Your task to perform on an android device: clear all cookies in the chrome app Image 0: 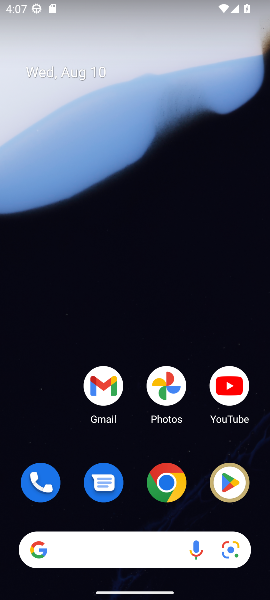
Step 0: click (165, 483)
Your task to perform on an android device: clear all cookies in the chrome app Image 1: 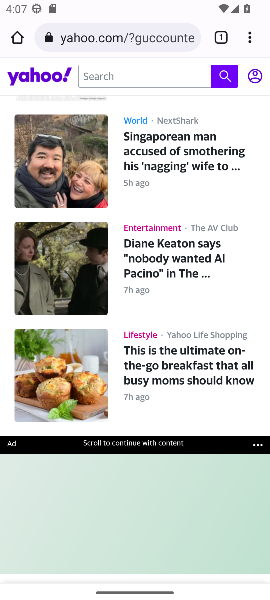
Step 1: click (251, 40)
Your task to perform on an android device: clear all cookies in the chrome app Image 2: 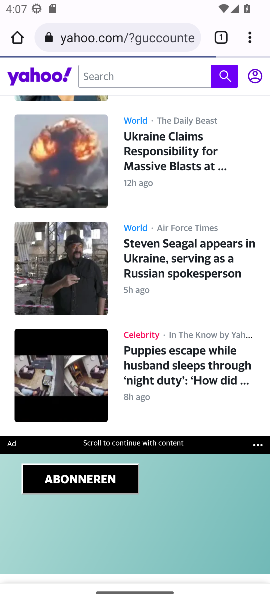
Step 2: click (247, 37)
Your task to perform on an android device: clear all cookies in the chrome app Image 3: 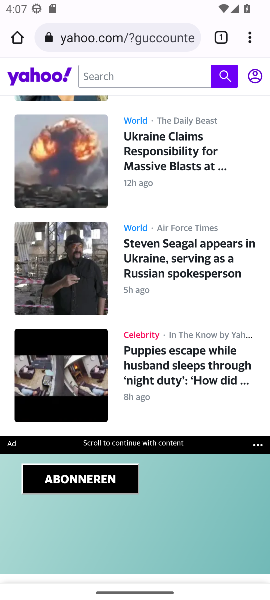
Step 3: click (247, 38)
Your task to perform on an android device: clear all cookies in the chrome app Image 4: 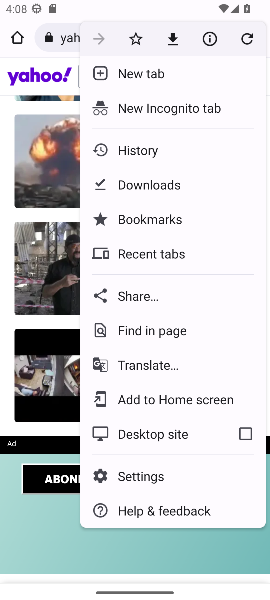
Step 4: click (141, 148)
Your task to perform on an android device: clear all cookies in the chrome app Image 5: 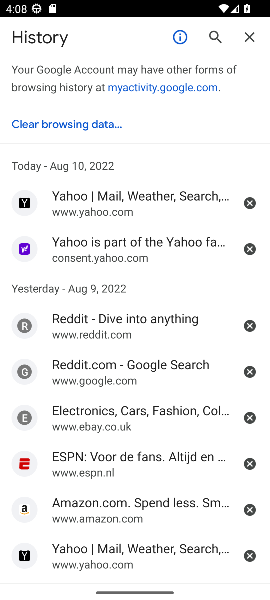
Step 5: click (110, 125)
Your task to perform on an android device: clear all cookies in the chrome app Image 6: 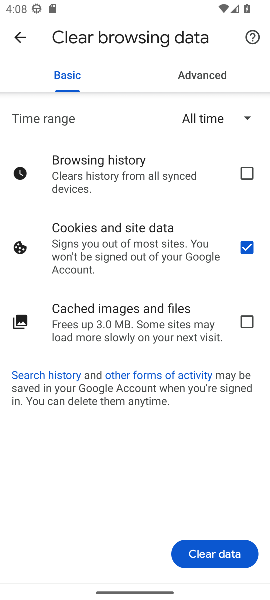
Step 6: click (208, 552)
Your task to perform on an android device: clear all cookies in the chrome app Image 7: 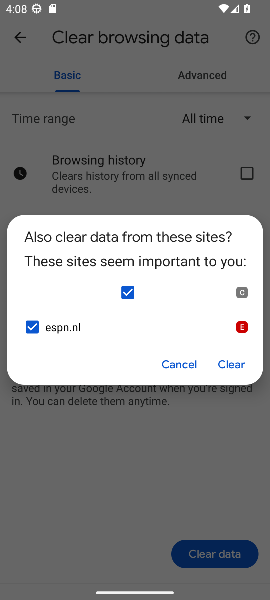
Step 7: click (238, 364)
Your task to perform on an android device: clear all cookies in the chrome app Image 8: 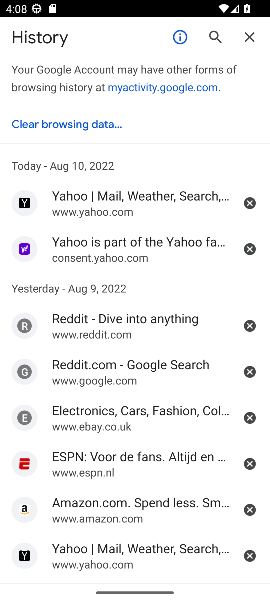
Step 8: task complete